Your task to perform on an android device: What is the recent news? Image 0: 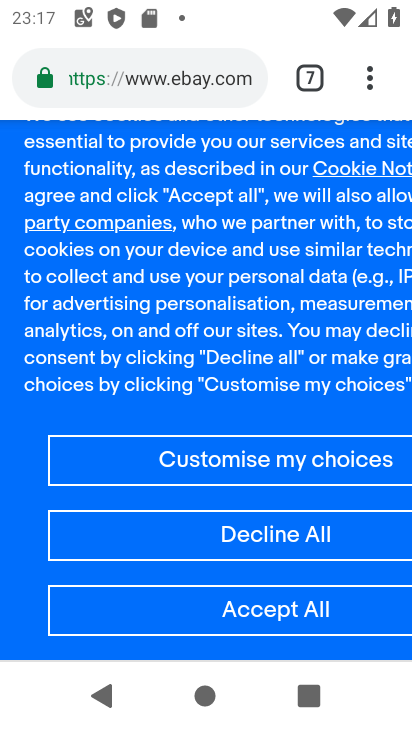
Step 0: press home button
Your task to perform on an android device: What is the recent news? Image 1: 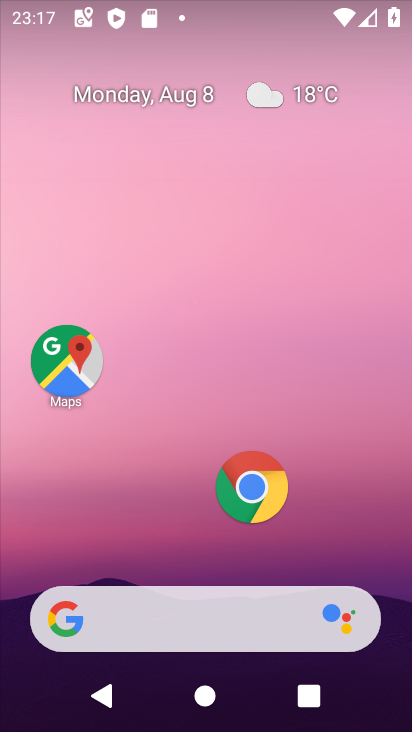
Step 1: task complete